Your task to perform on an android device: clear all cookies in the chrome app Image 0: 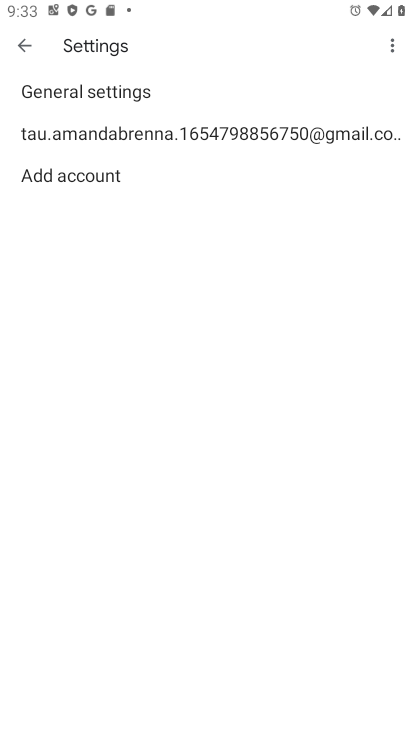
Step 0: press home button
Your task to perform on an android device: clear all cookies in the chrome app Image 1: 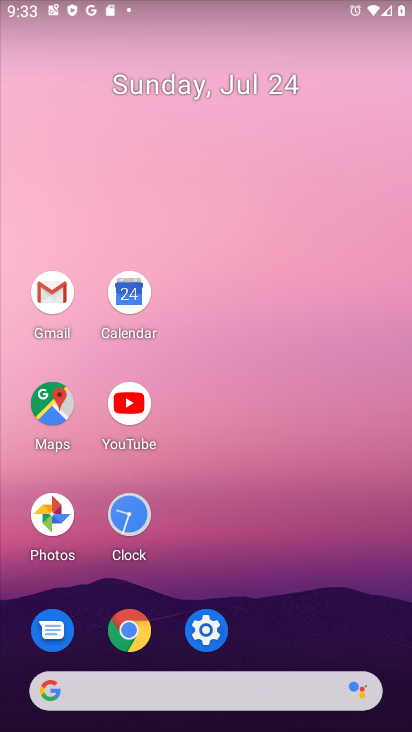
Step 1: click (126, 628)
Your task to perform on an android device: clear all cookies in the chrome app Image 2: 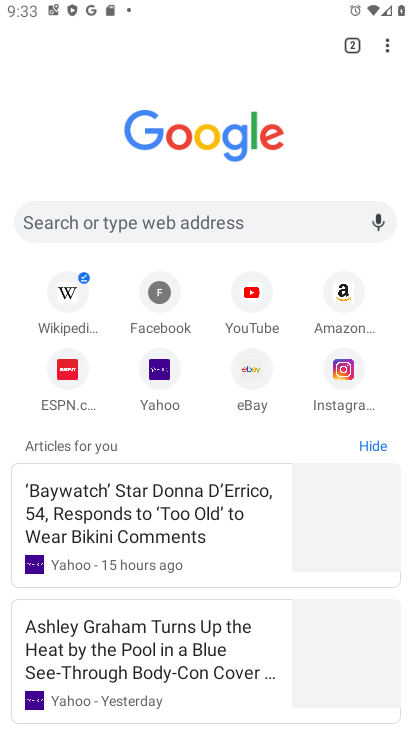
Step 2: click (384, 49)
Your task to perform on an android device: clear all cookies in the chrome app Image 3: 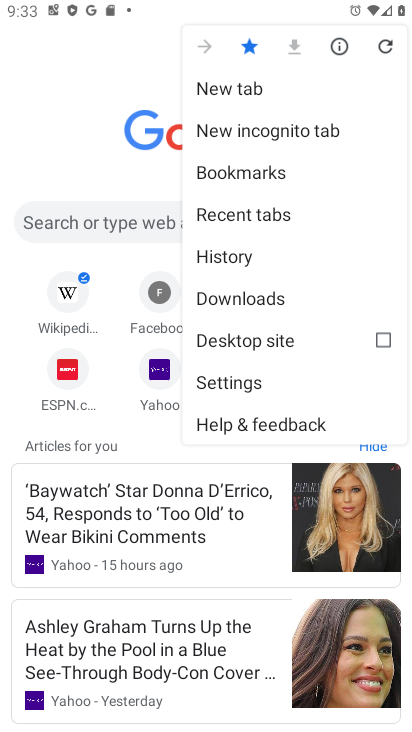
Step 3: click (222, 256)
Your task to perform on an android device: clear all cookies in the chrome app Image 4: 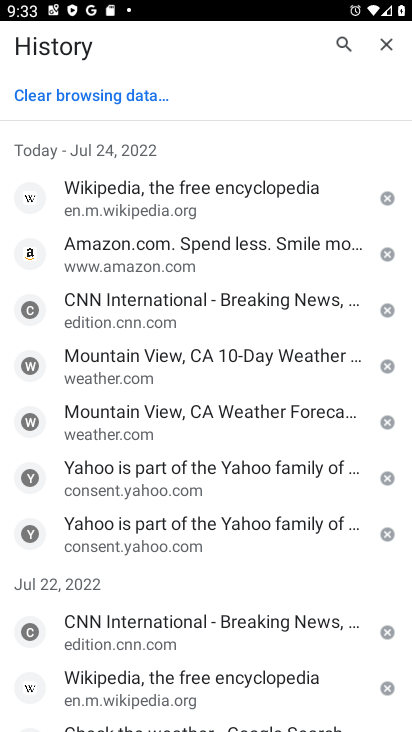
Step 4: click (95, 95)
Your task to perform on an android device: clear all cookies in the chrome app Image 5: 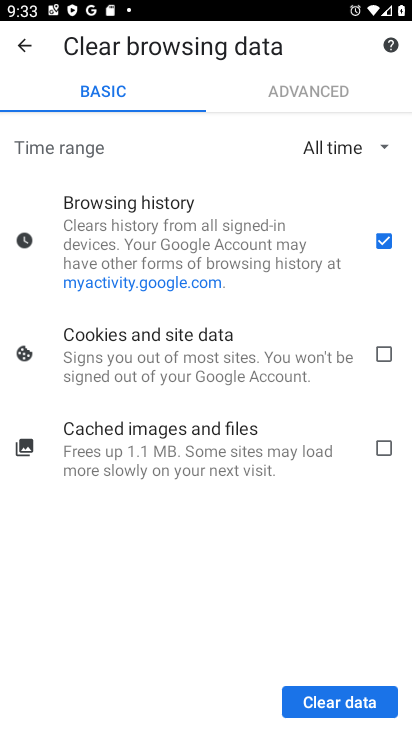
Step 5: click (380, 241)
Your task to perform on an android device: clear all cookies in the chrome app Image 6: 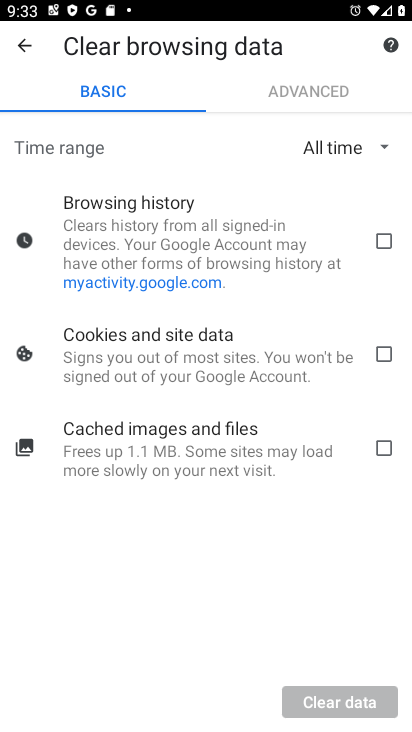
Step 6: click (385, 359)
Your task to perform on an android device: clear all cookies in the chrome app Image 7: 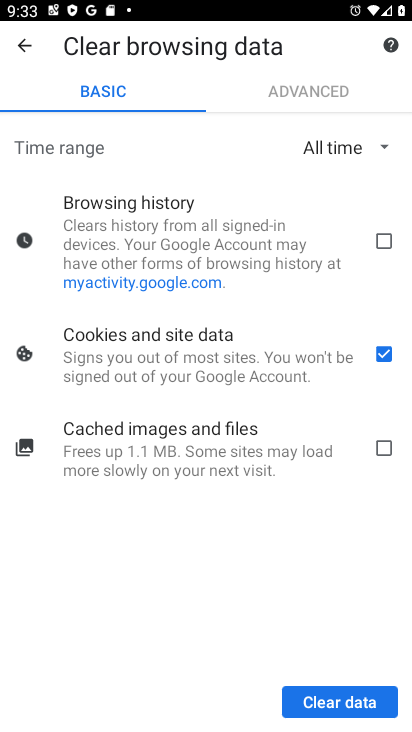
Step 7: click (330, 706)
Your task to perform on an android device: clear all cookies in the chrome app Image 8: 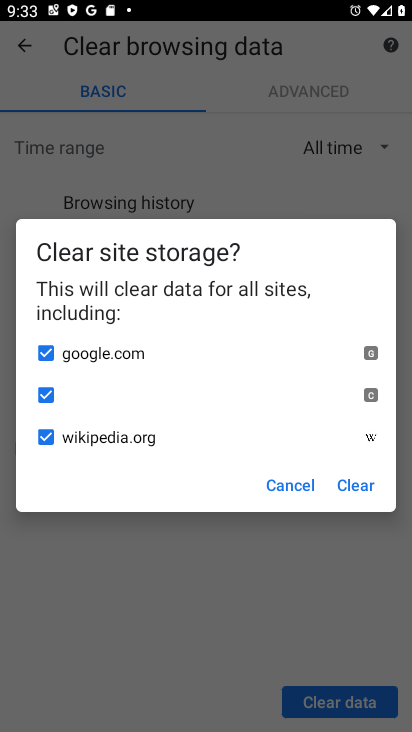
Step 8: click (348, 492)
Your task to perform on an android device: clear all cookies in the chrome app Image 9: 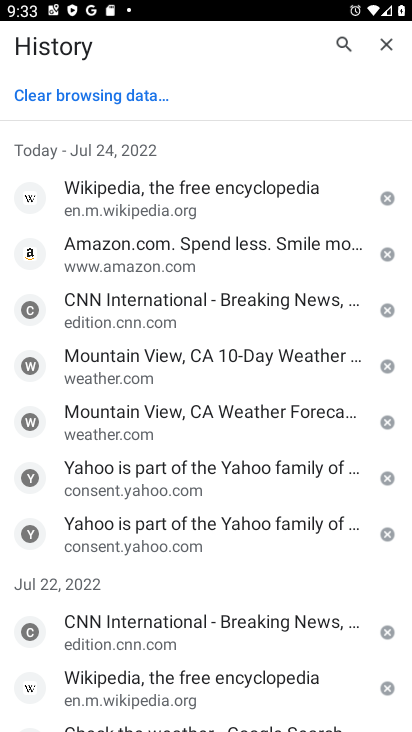
Step 9: task complete